Your task to perform on an android device: change the upload size in google photos Image 0: 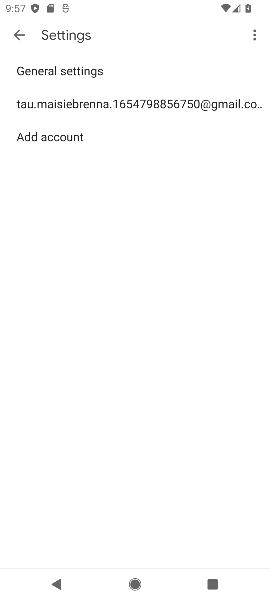
Step 0: press home button
Your task to perform on an android device: change the upload size in google photos Image 1: 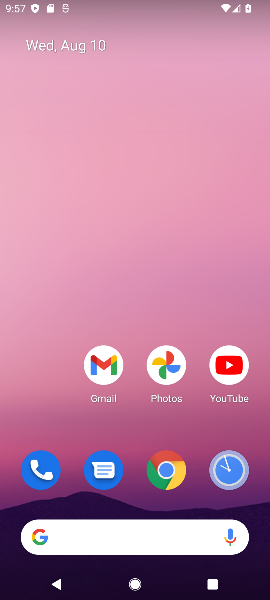
Step 1: click (167, 356)
Your task to perform on an android device: change the upload size in google photos Image 2: 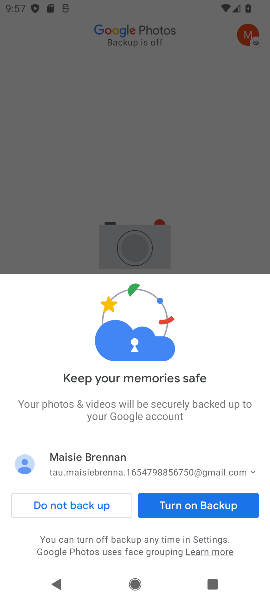
Step 2: click (203, 501)
Your task to perform on an android device: change the upload size in google photos Image 3: 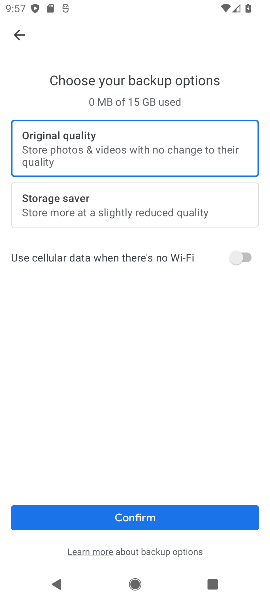
Step 3: click (148, 201)
Your task to perform on an android device: change the upload size in google photos Image 4: 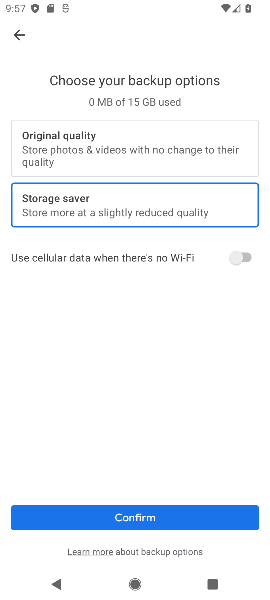
Step 4: task complete